Your task to perform on an android device: Search for "dell xps" on amazon, select the first entry, add it to the cart, then select checkout. Image 0: 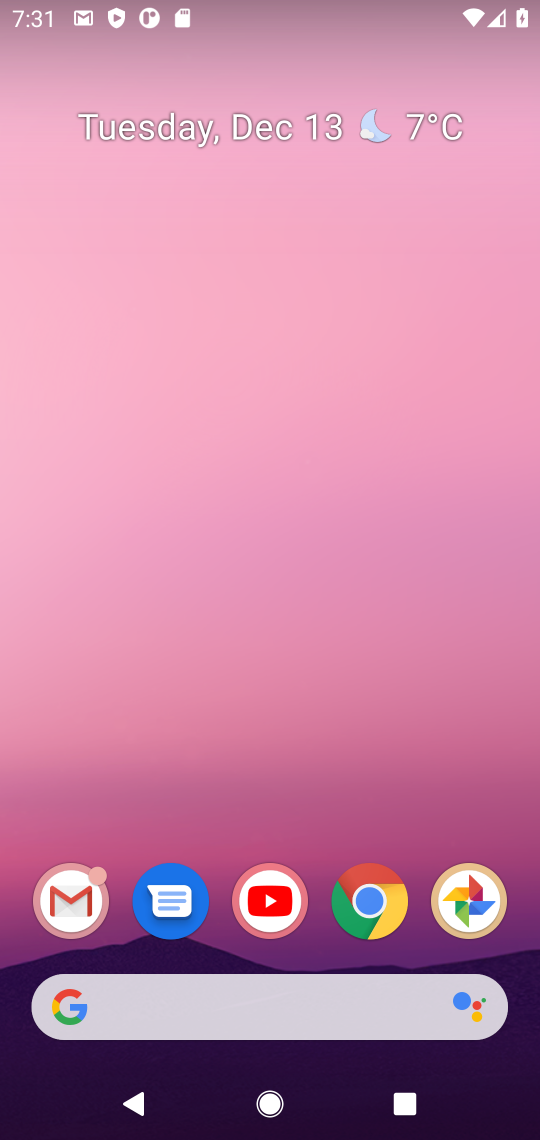
Step 0: click (368, 912)
Your task to perform on an android device: Search for "dell xps" on amazon, select the first entry, add it to the cart, then select checkout. Image 1: 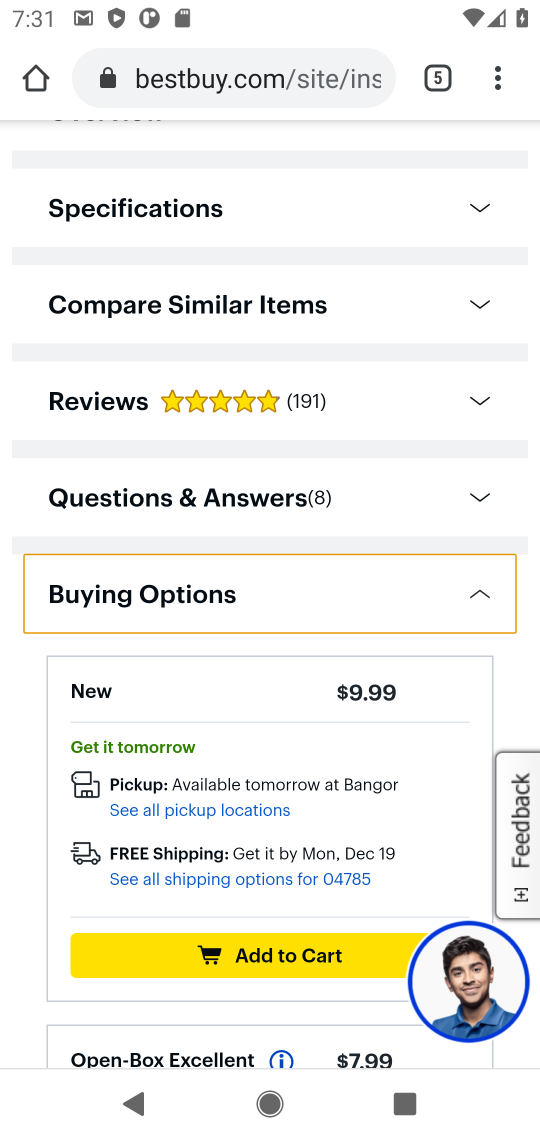
Step 1: click (432, 76)
Your task to perform on an android device: Search for "dell xps" on amazon, select the first entry, add it to the cart, then select checkout. Image 2: 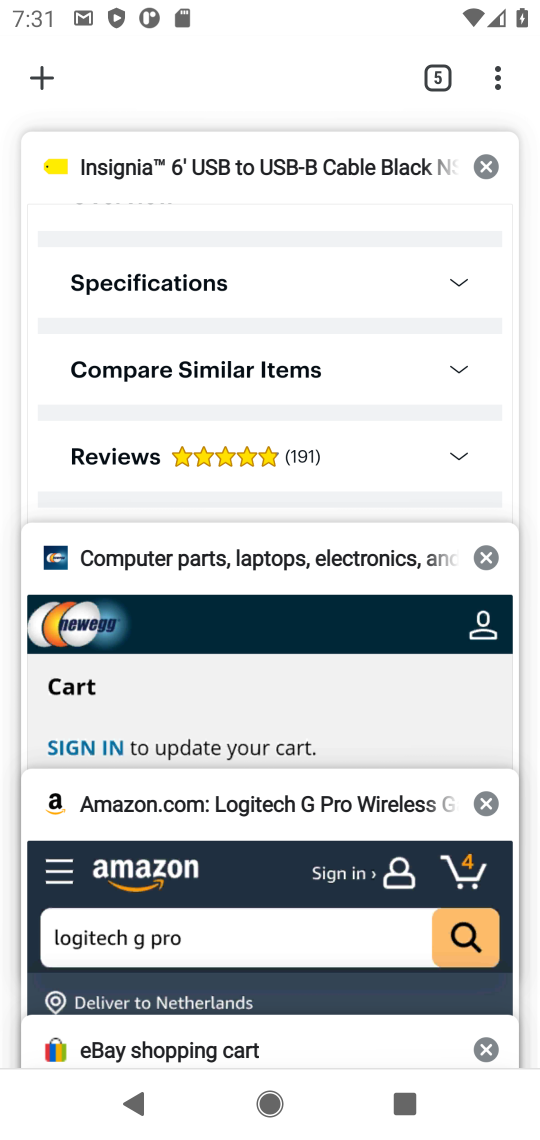
Step 2: click (264, 866)
Your task to perform on an android device: Search for "dell xps" on amazon, select the first entry, add it to the cart, then select checkout. Image 3: 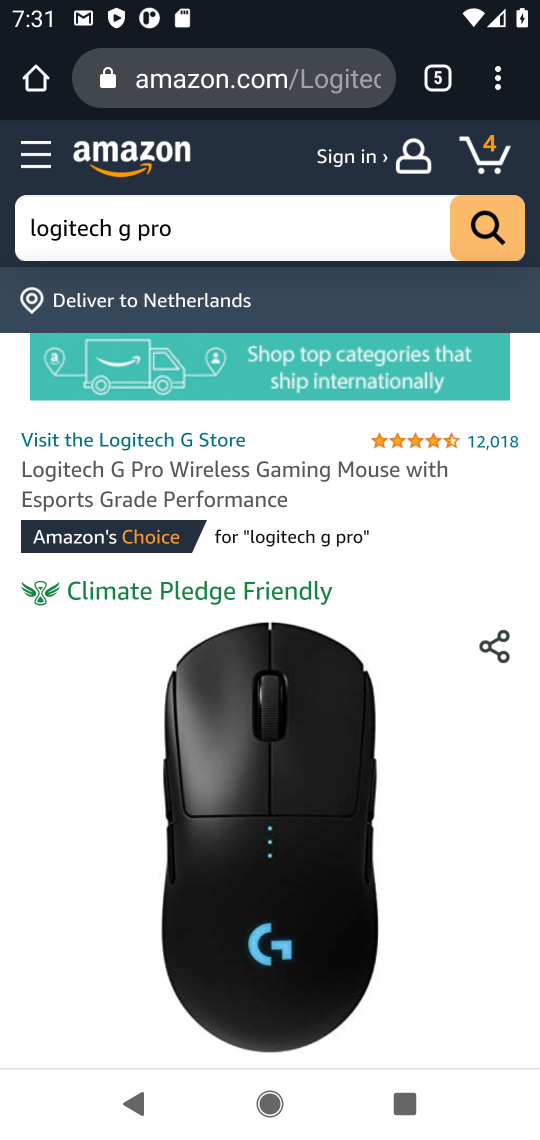
Step 3: click (298, 255)
Your task to perform on an android device: Search for "dell xps" on amazon, select the first entry, add it to the cart, then select checkout. Image 4: 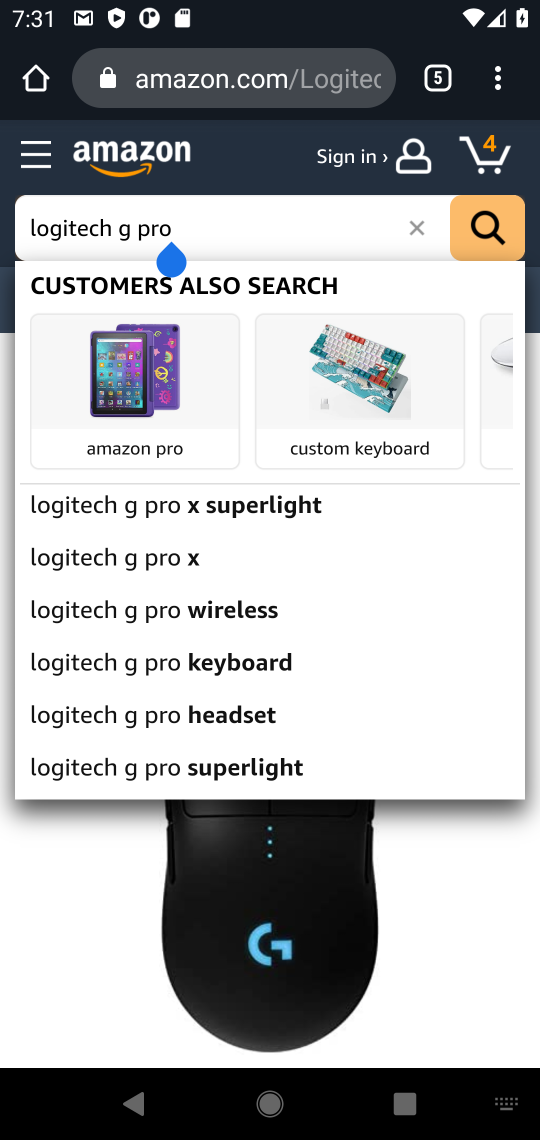
Step 4: click (418, 235)
Your task to perform on an android device: Search for "dell xps" on amazon, select the first entry, add it to the cart, then select checkout. Image 5: 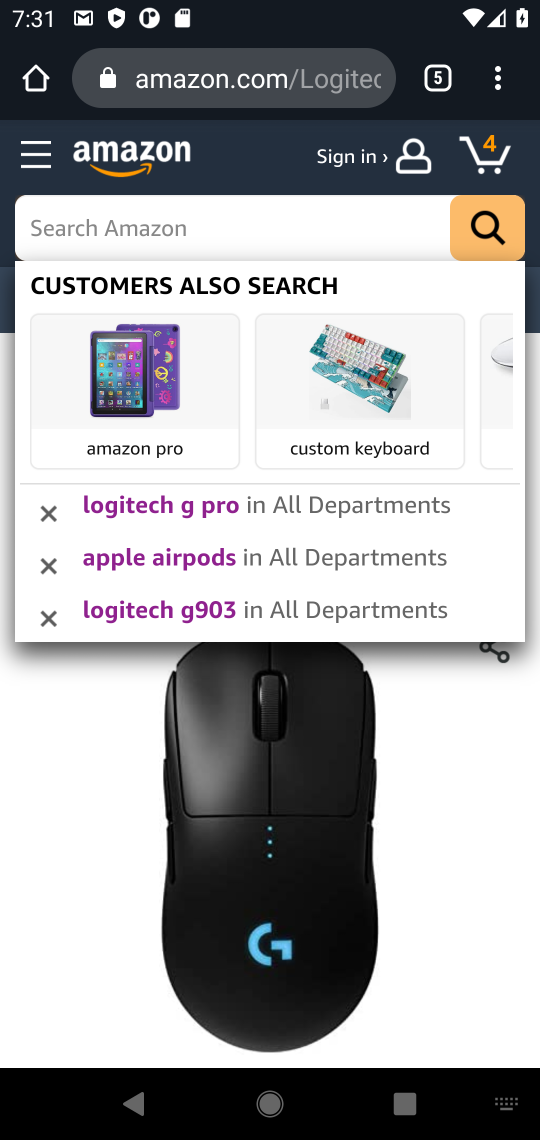
Step 5: type "dell xps"
Your task to perform on an android device: Search for "dell xps" on amazon, select the first entry, add it to the cart, then select checkout. Image 6: 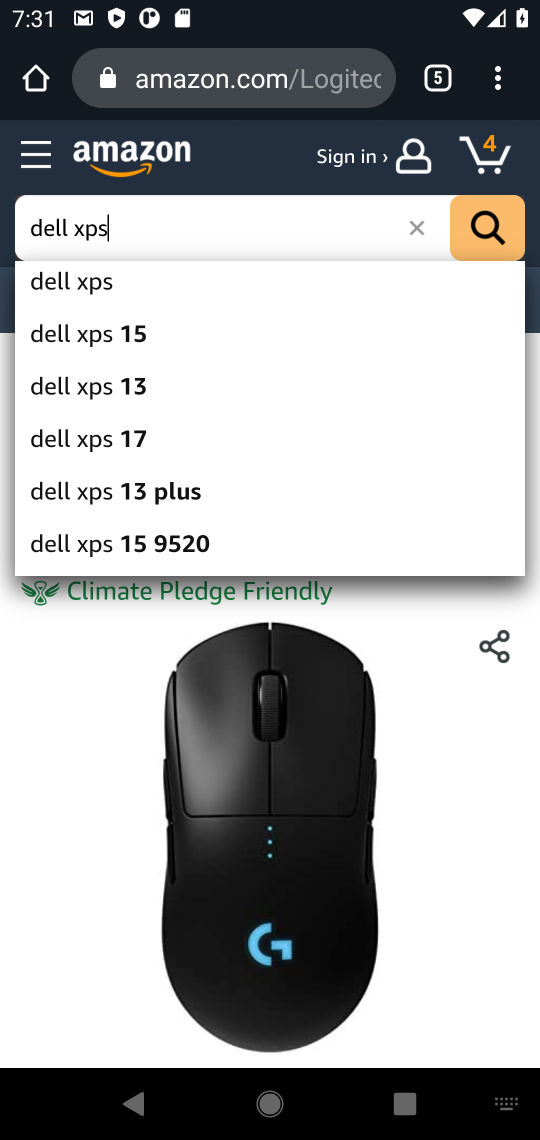
Step 6: click (98, 274)
Your task to perform on an android device: Search for "dell xps" on amazon, select the first entry, add it to the cart, then select checkout. Image 7: 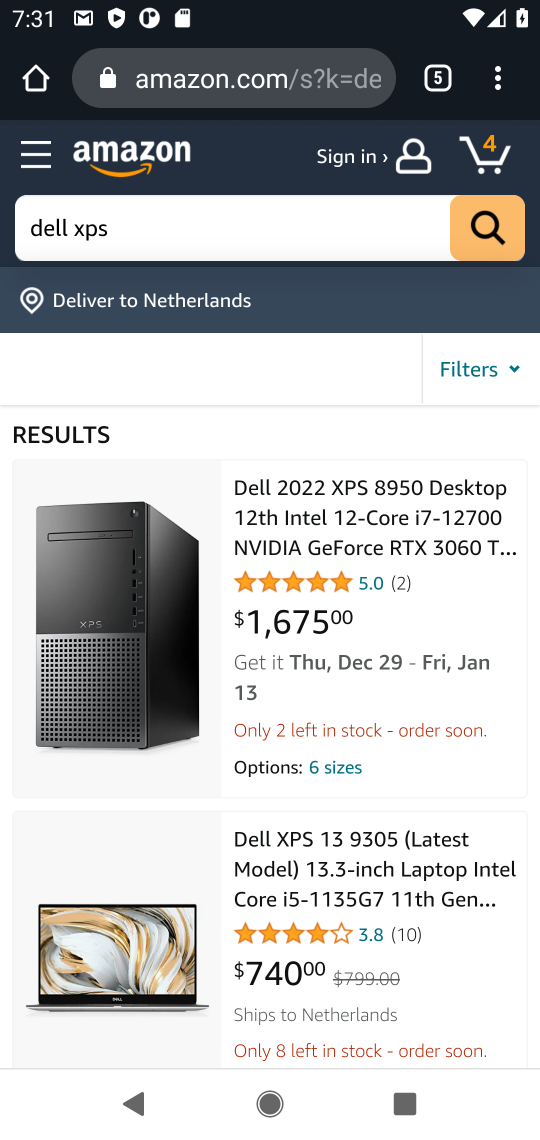
Step 7: click (376, 859)
Your task to perform on an android device: Search for "dell xps" on amazon, select the first entry, add it to the cart, then select checkout. Image 8: 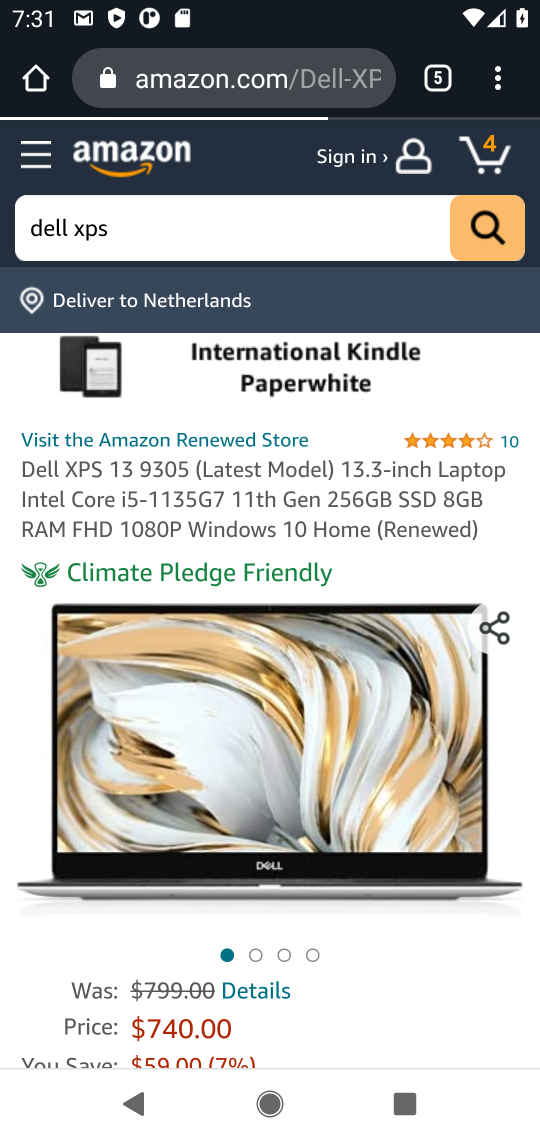
Step 8: drag from (357, 998) to (416, 381)
Your task to perform on an android device: Search for "dell xps" on amazon, select the first entry, add it to the cart, then select checkout. Image 9: 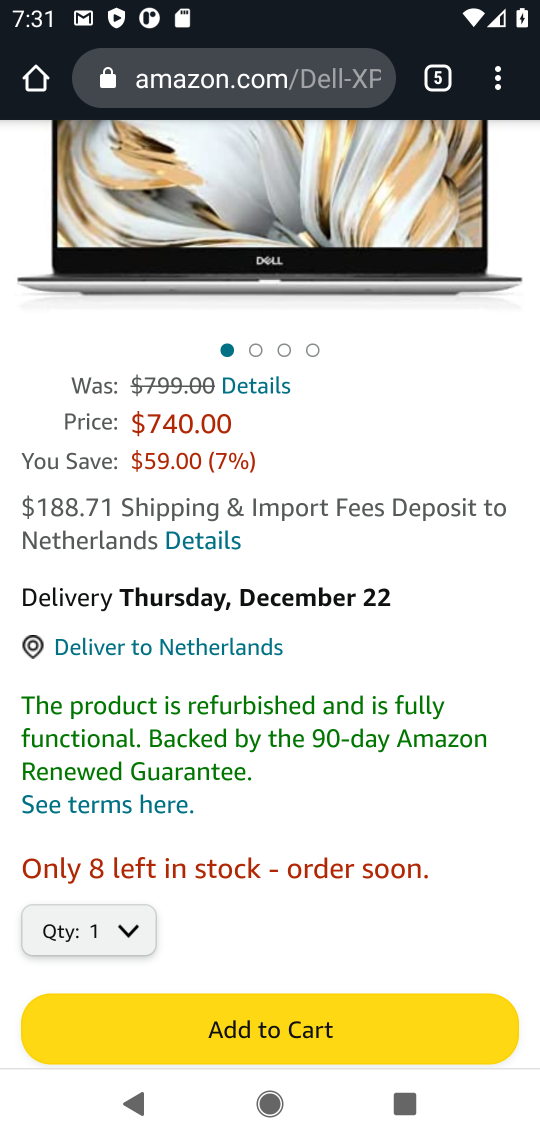
Step 9: click (291, 1033)
Your task to perform on an android device: Search for "dell xps" on amazon, select the first entry, add it to the cart, then select checkout. Image 10: 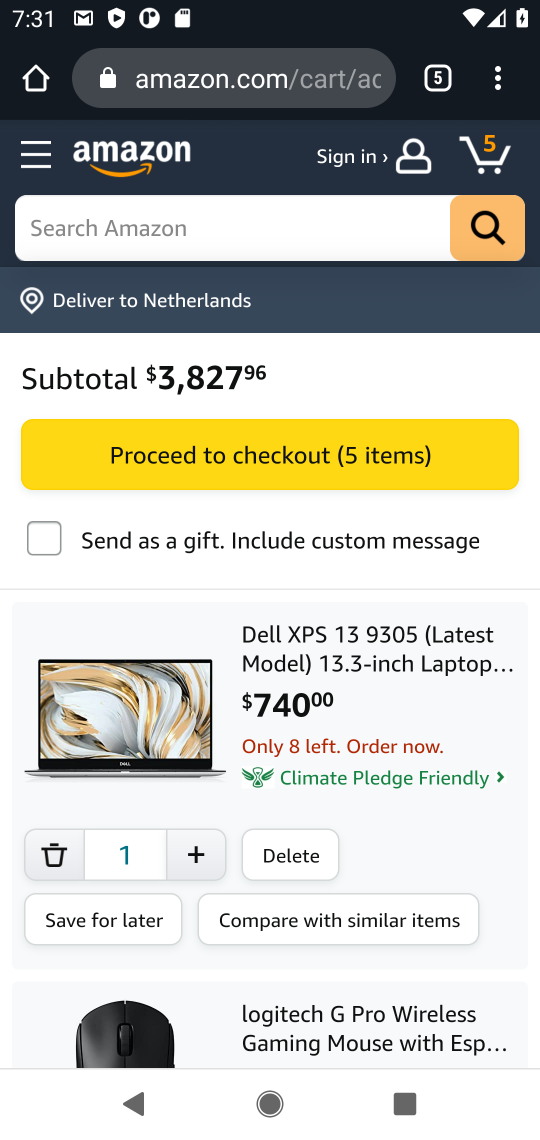
Step 10: click (273, 468)
Your task to perform on an android device: Search for "dell xps" on amazon, select the first entry, add it to the cart, then select checkout. Image 11: 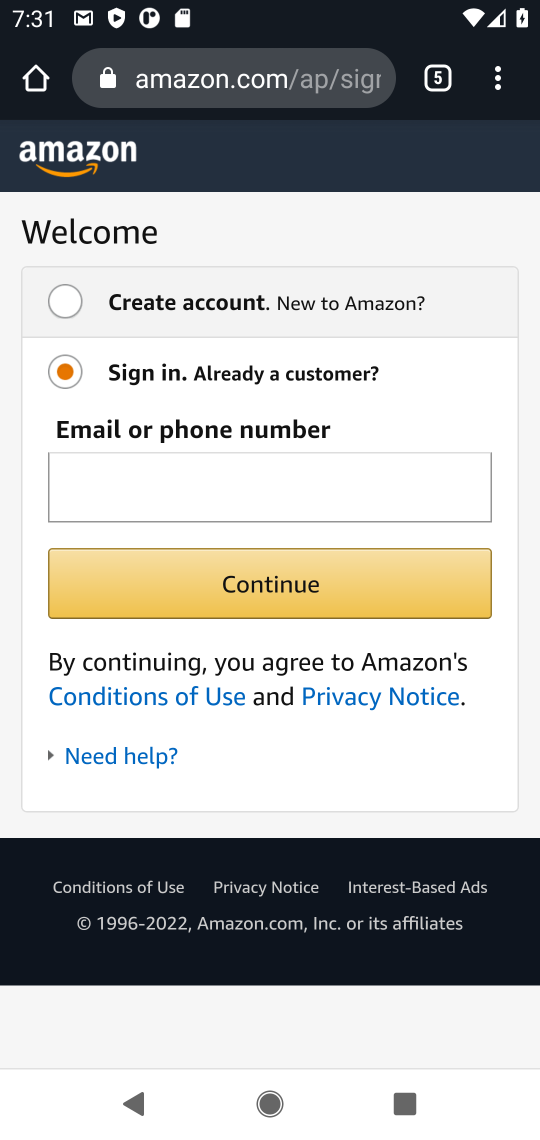
Step 11: task complete